Your task to perform on an android device: turn off javascript in the chrome app Image 0: 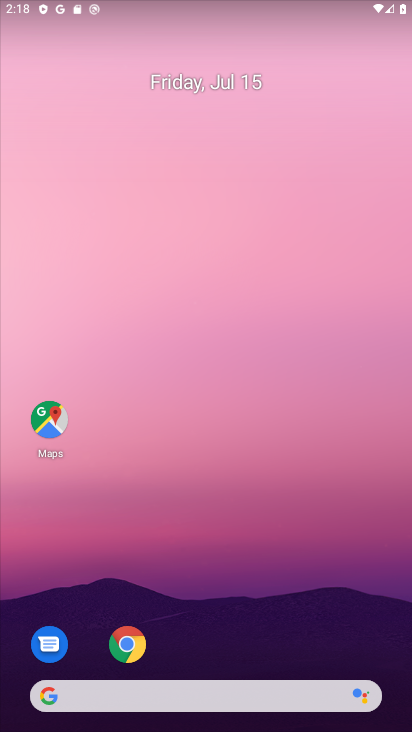
Step 0: drag from (219, 676) to (374, 38)
Your task to perform on an android device: turn off javascript in the chrome app Image 1: 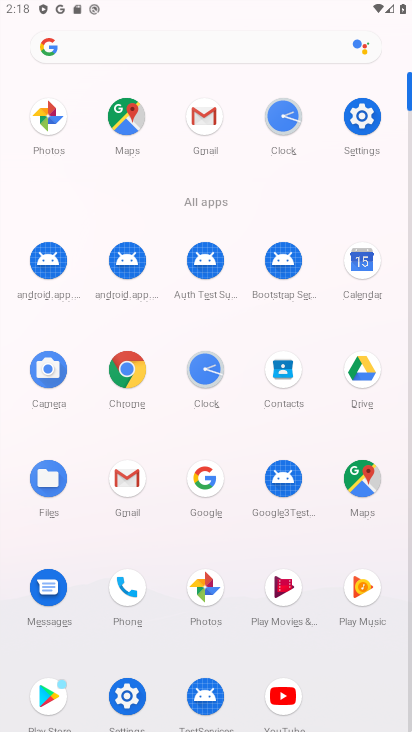
Step 1: click (127, 382)
Your task to perform on an android device: turn off javascript in the chrome app Image 2: 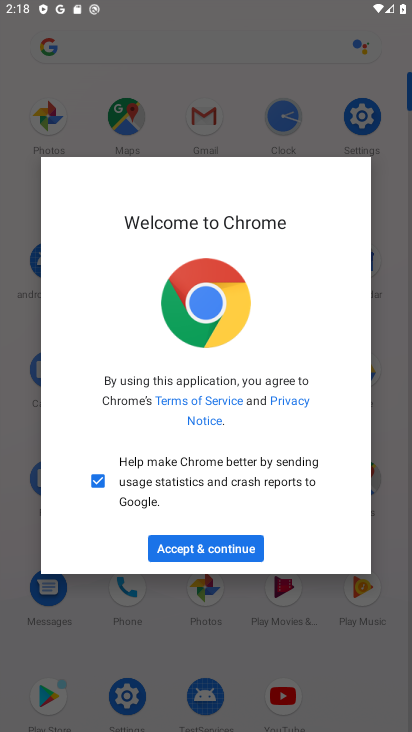
Step 2: click (199, 549)
Your task to perform on an android device: turn off javascript in the chrome app Image 3: 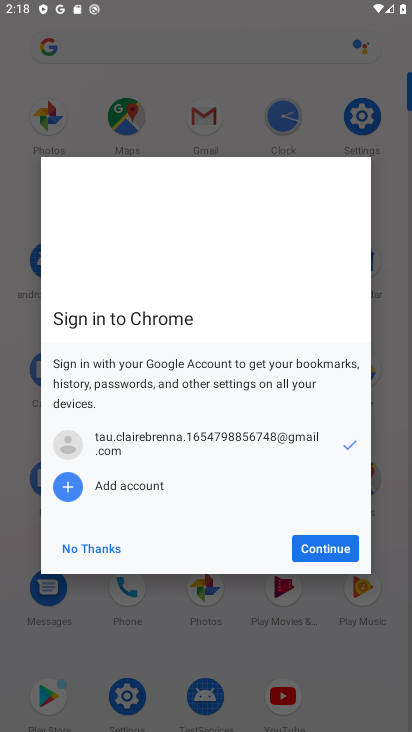
Step 3: click (329, 554)
Your task to perform on an android device: turn off javascript in the chrome app Image 4: 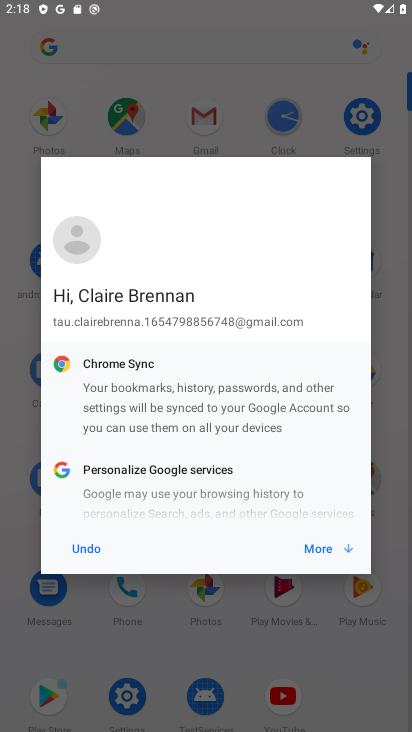
Step 4: click (329, 551)
Your task to perform on an android device: turn off javascript in the chrome app Image 5: 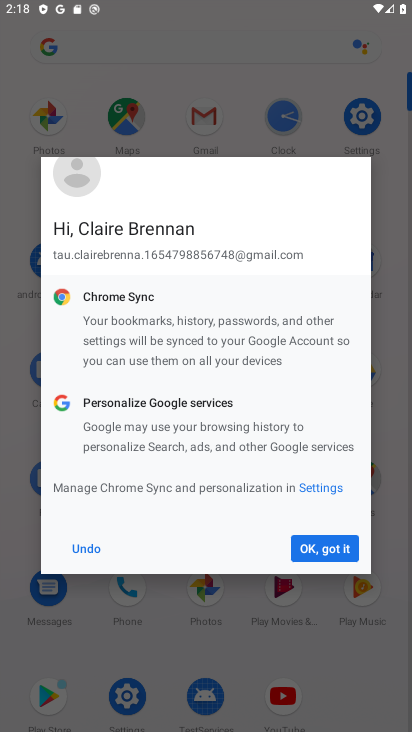
Step 5: click (329, 551)
Your task to perform on an android device: turn off javascript in the chrome app Image 6: 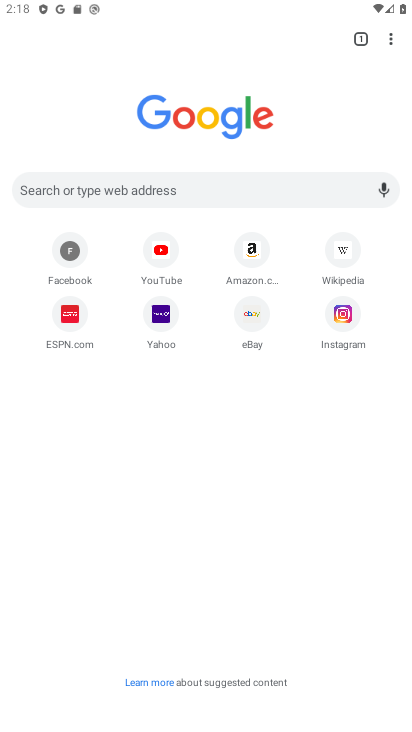
Step 6: drag from (387, 42) to (320, 311)
Your task to perform on an android device: turn off javascript in the chrome app Image 7: 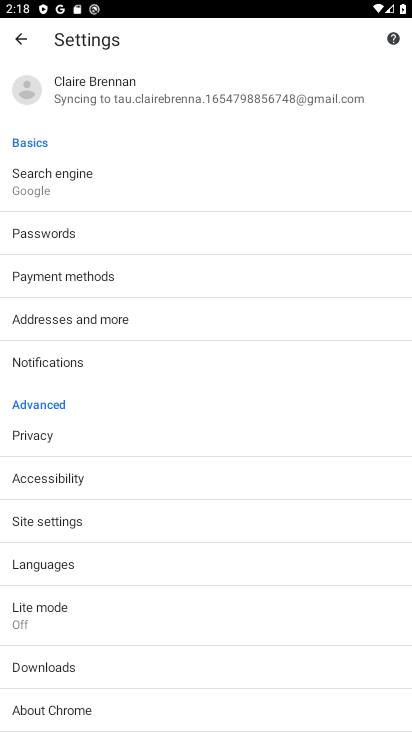
Step 7: drag from (140, 477) to (164, 345)
Your task to perform on an android device: turn off javascript in the chrome app Image 8: 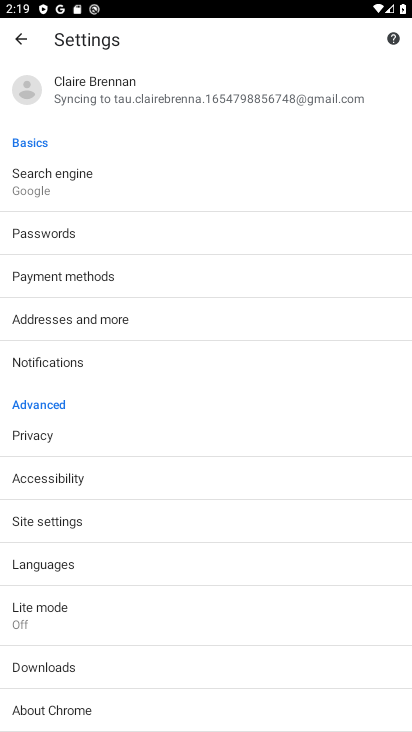
Step 8: click (102, 527)
Your task to perform on an android device: turn off javascript in the chrome app Image 9: 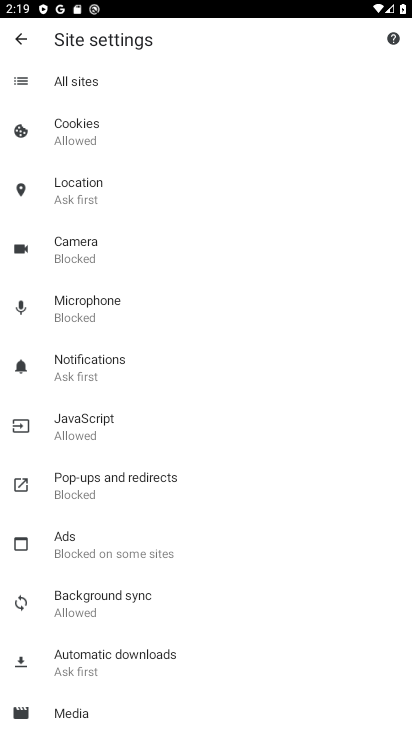
Step 9: click (126, 407)
Your task to perform on an android device: turn off javascript in the chrome app Image 10: 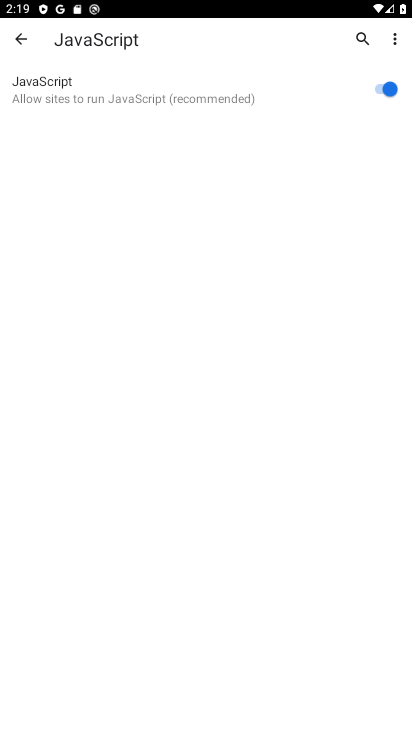
Step 10: click (382, 82)
Your task to perform on an android device: turn off javascript in the chrome app Image 11: 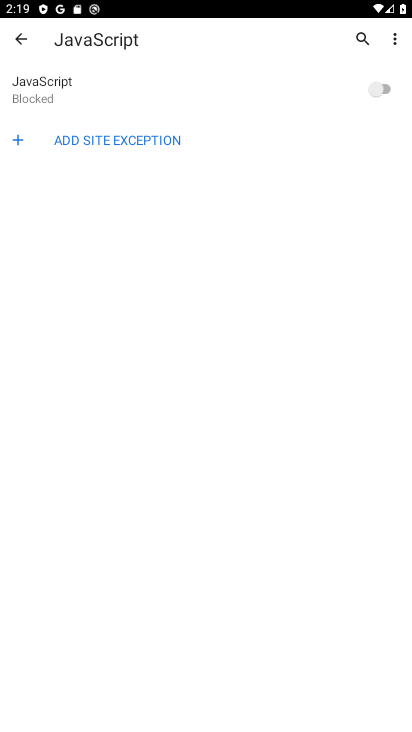
Step 11: task complete